Your task to perform on an android device: see sites visited before in the chrome app Image 0: 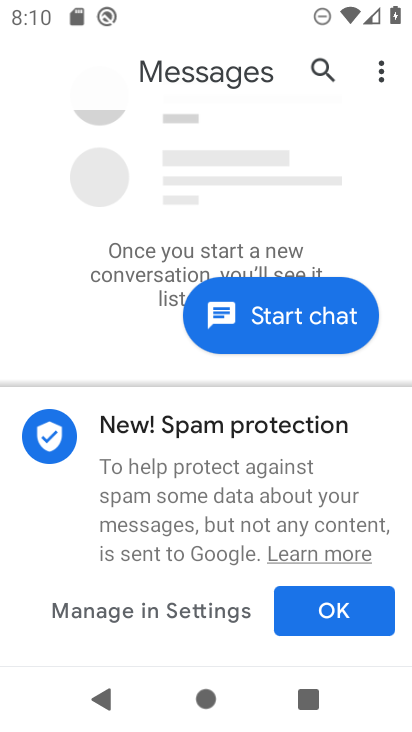
Step 0: press back button
Your task to perform on an android device: see sites visited before in the chrome app Image 1: 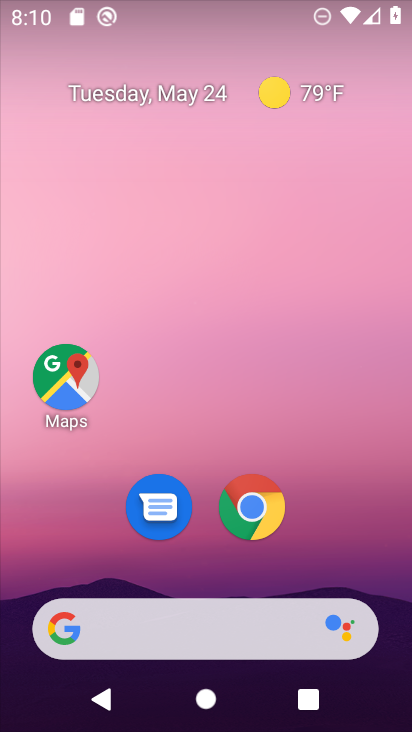
Step 1: drag from (336, 528) to (229, 1)
Your task to perform on an android device: see sites visited before in the chrome app Image 2: 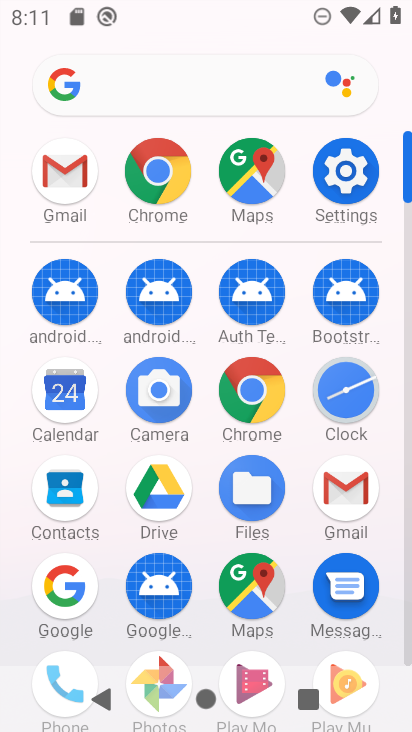
Step 2: drag from (16, 592) to (15, 261)
Your task to perform on an android device: see sites visited before in the chrome app Image 3: 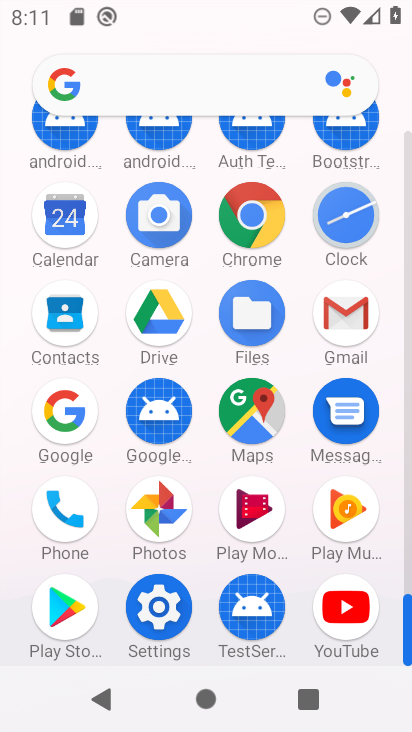
Step 3: click (247, 210)
Your task to perform on an android device: see sites visited before in the chrome app Image 4: 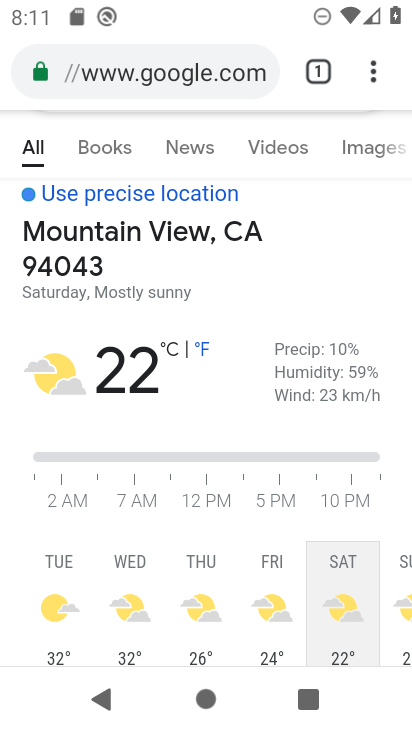
Step 4: task complete